Your task to perform on an android device: remove spam from my inbox in the gmail app Image 0: 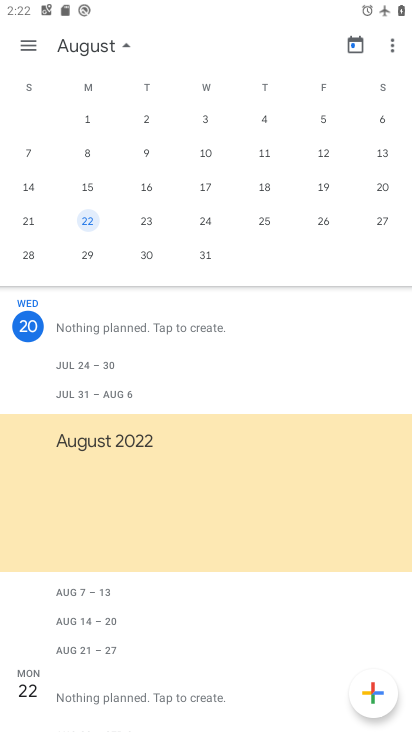
Step 0: press home button
Your task to perform on an android device: remove spam from my inbox in the gmail app Image 1: 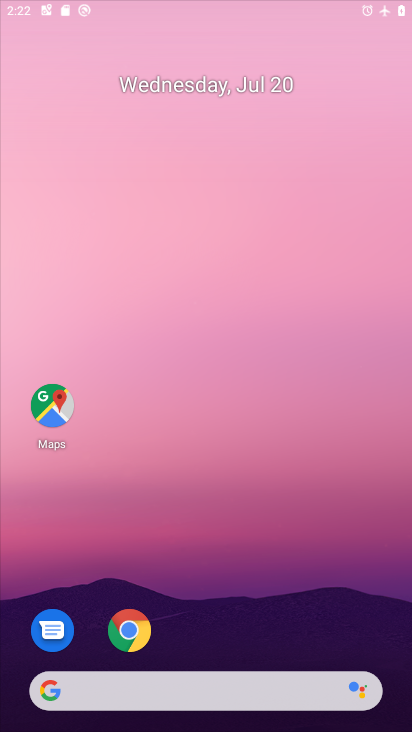
Step 1: drag from (161, 458) to (194, 0)
Your task to perform on an android device: remove spam from my inbox in the gmail app Image 2: 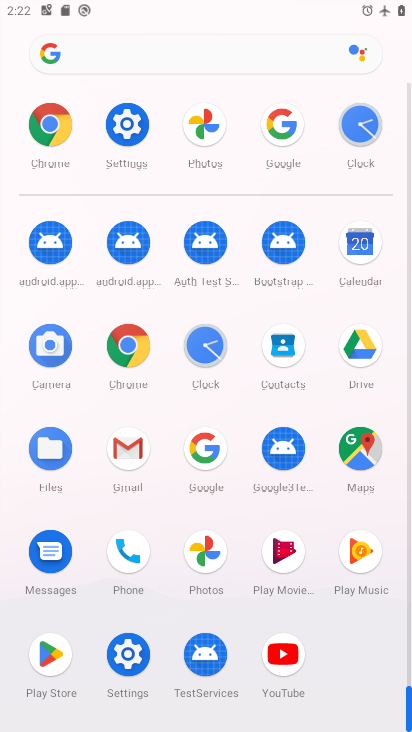
Step 2: drag from (197, 392) to (198, 165)
Your task to perform on an android device: remove spam from my inbox in the gmail app Image 3: 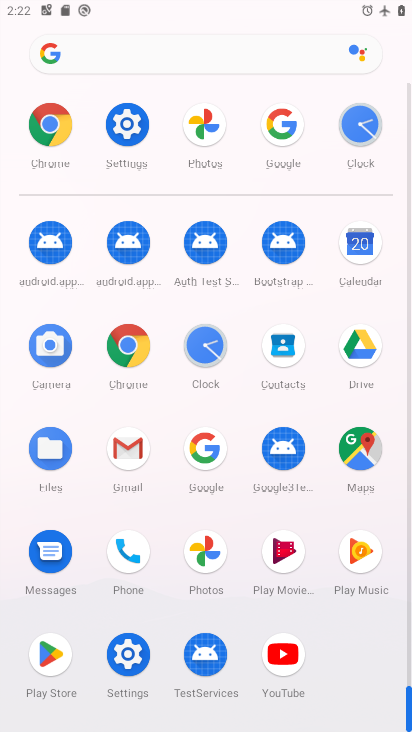
Step 3: click (117, 458)
Your task to perform on an android device: remove spam from my inbox in the gmail app Image 4: 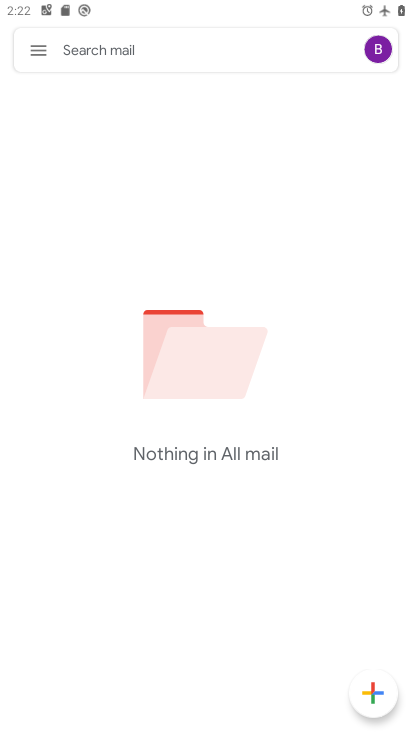
Step 4: click (48, 49)
Your task to perform on an android device: remove spam from my inbox in the gmail app Image 5: 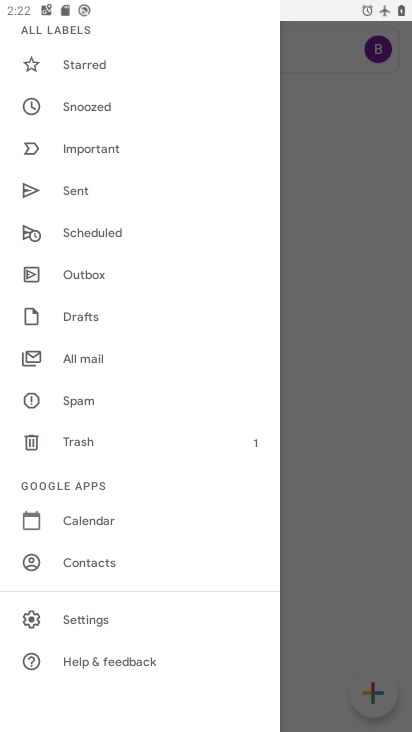
Step 5: drag from (78, 273) to (70, 516)
Your task to perform on an android device: remove spam from my inbox in the gmail app Image 6: 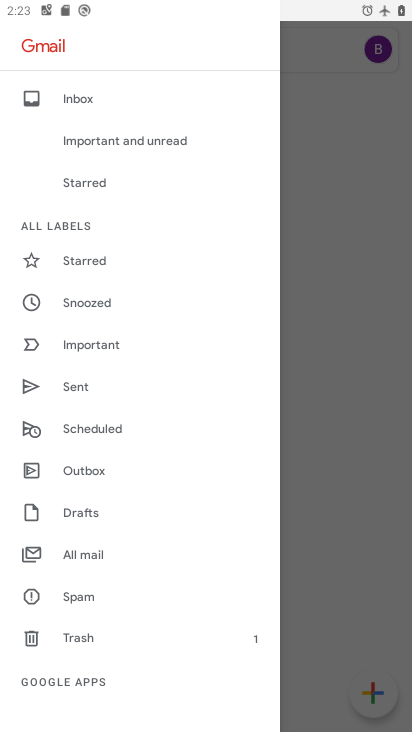
Step 6: click (89, 590)
Your task to perform on an android device: remove spam from my inbox in the gmail app Image 7: 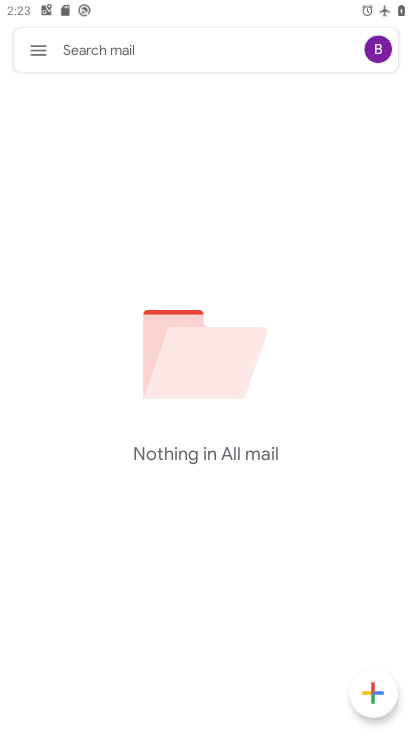
Step 7: task complete